Your task to perform on an android device: What's the weather going to be this weekend? Image 0: 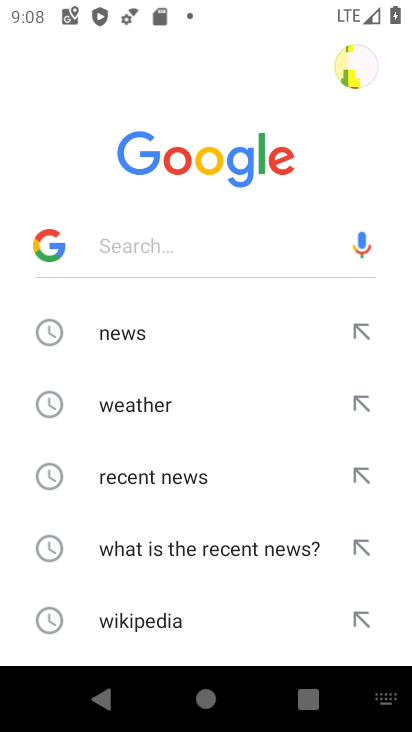
Step 0: click (115, 403)
Your task to perform on an android device: What's the weather going to be this weekend? Image 1: 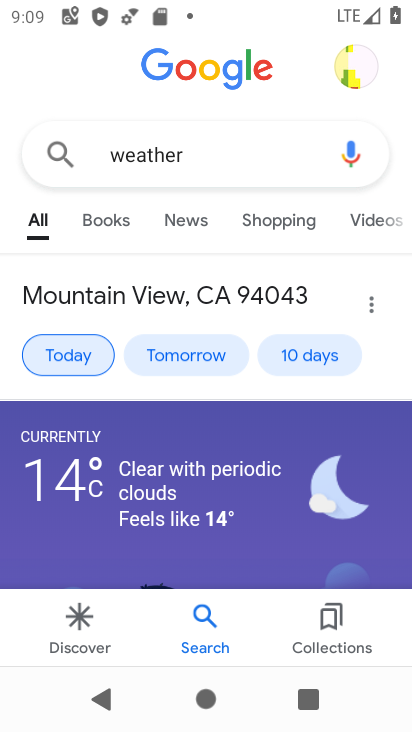
Step 1: click (299, 374)
Your task to perform on an android device: What's the weather going to be this weekend? Image 2: 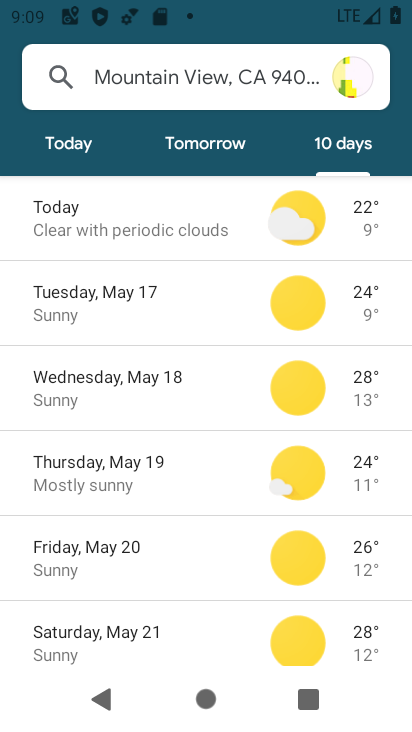
Step 2: task complete